Your task to perform on an android device: change your default location settings in chrome Image 0: 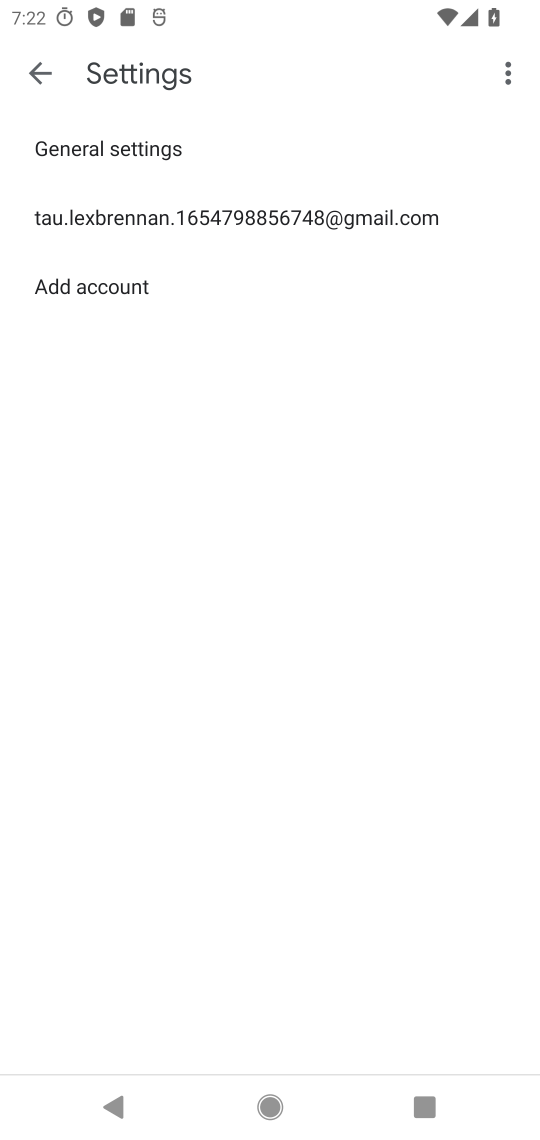
Step 0: click (37, 83)
Your task to perform on an android device: change your default location settings in chrome Image 1: 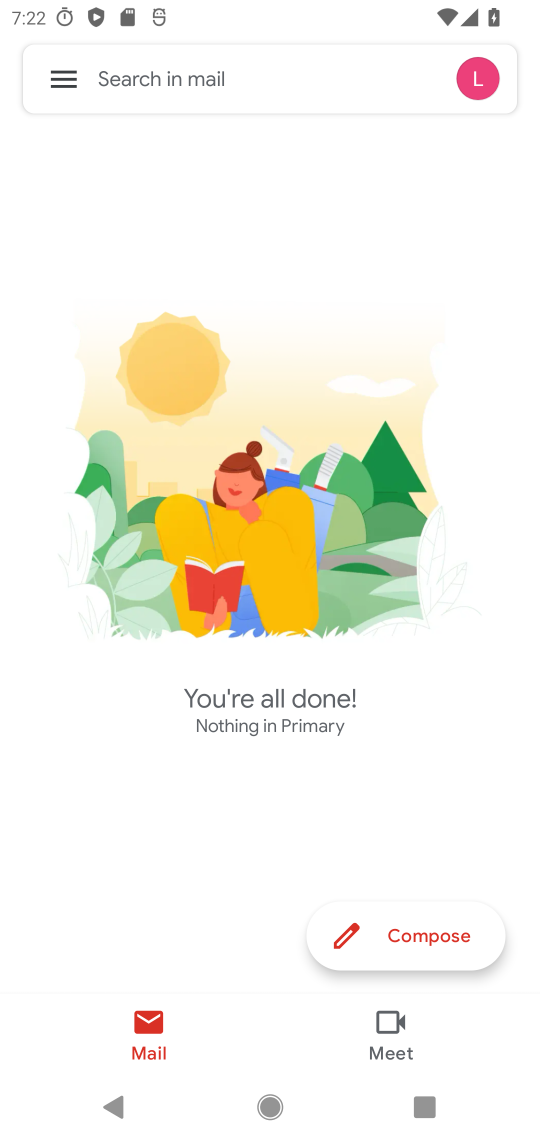
Step 1: click (72, 54)
Your task to perform on an android device: change your default location settings in chrome Image 2: 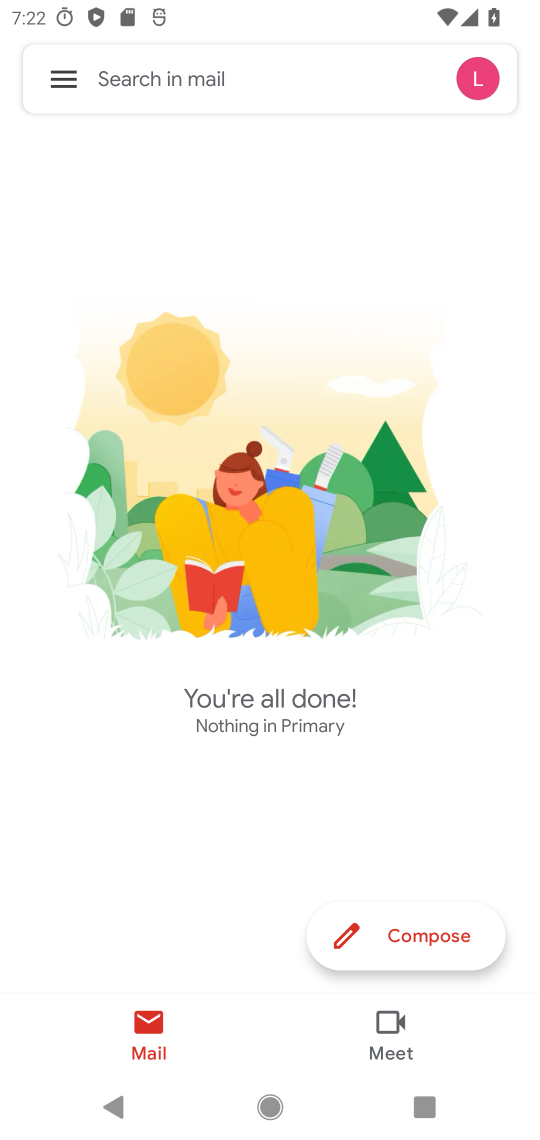
Step 2: click (72, 57)
Your task to perform on an android device: change your default location settings in chrome Image 3: 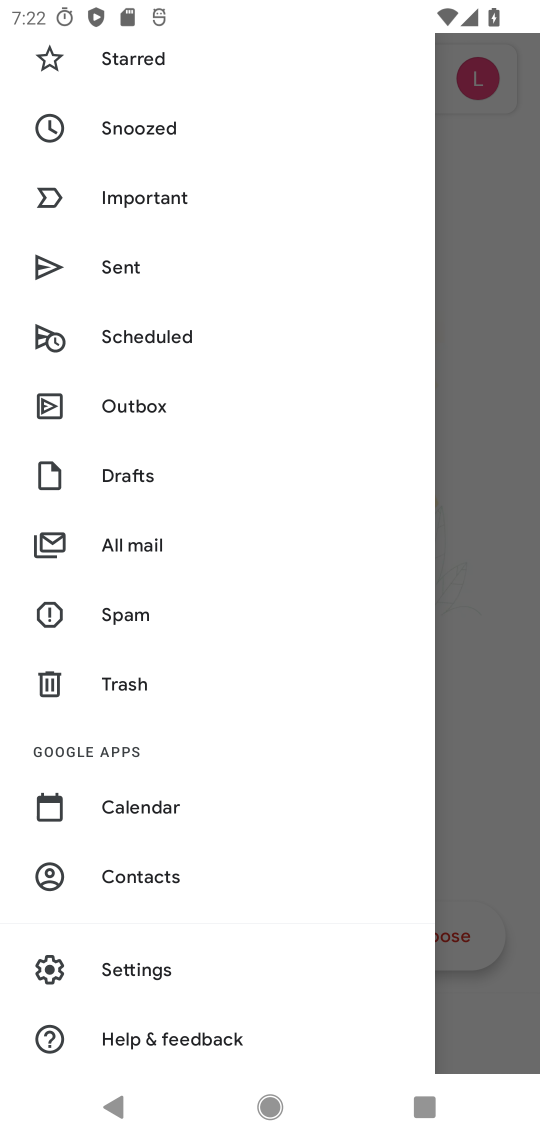
Step 3: click (426, 212)
Your task to perform on an android device: change your default location settings in chrome Image 4: 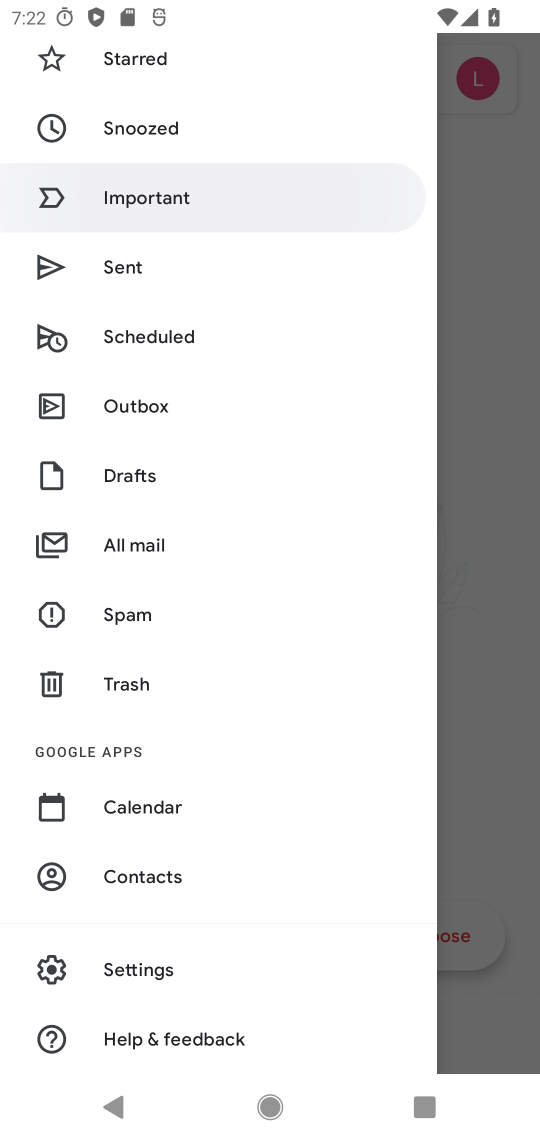
Step 4: click (479, 289)
Your task to perform on an android device: change your default location settings in chrome Image 5: 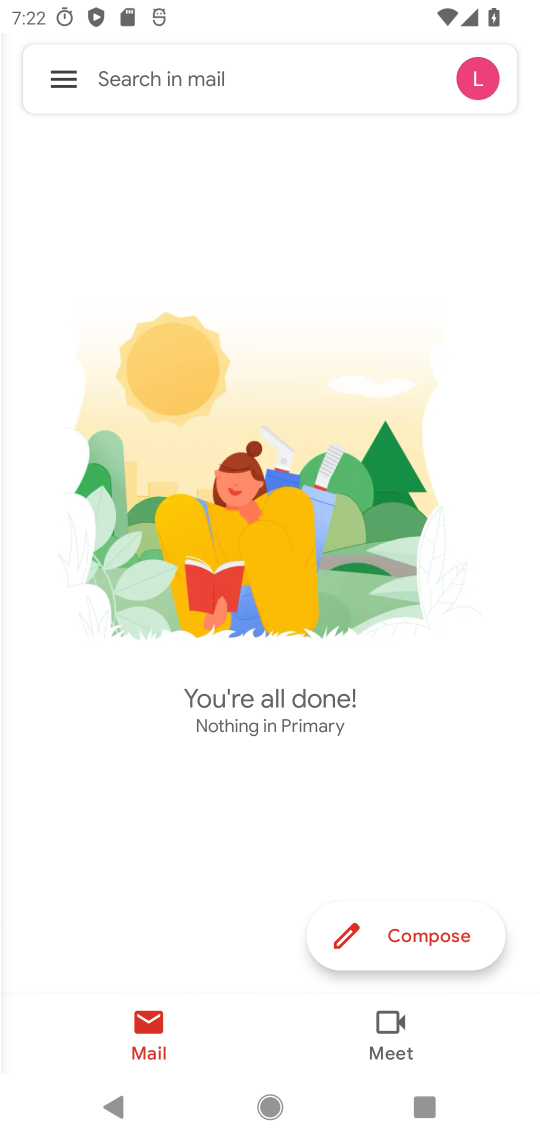
Step 5: click (479, 289)
Your task to perform on an android device: change your default location settings in chrome Image 6: 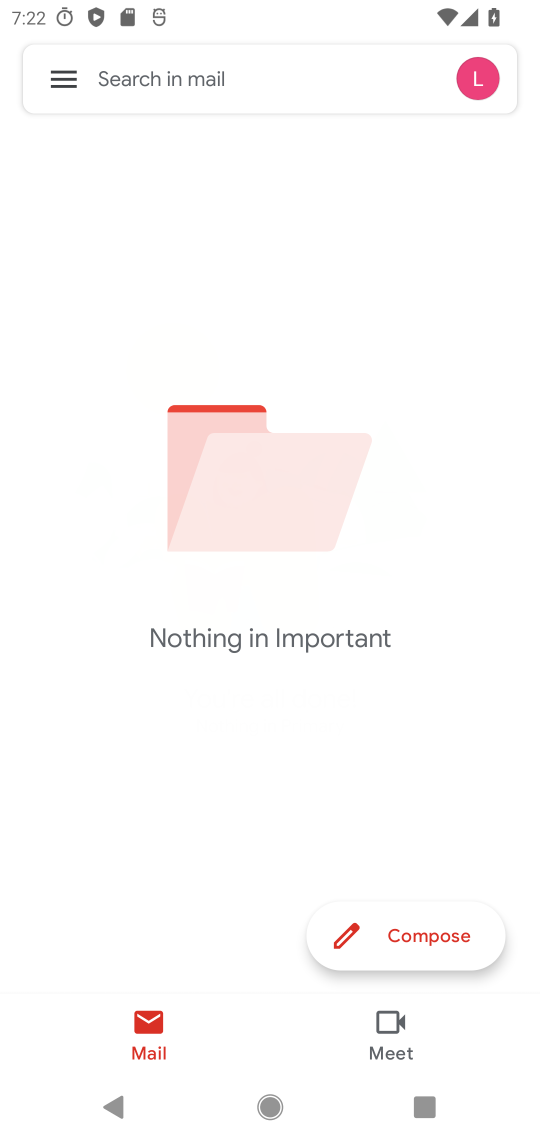
Step 6: click (479, 290)
Your task to perform on an android device: change your default location settings in chrome Image 7: 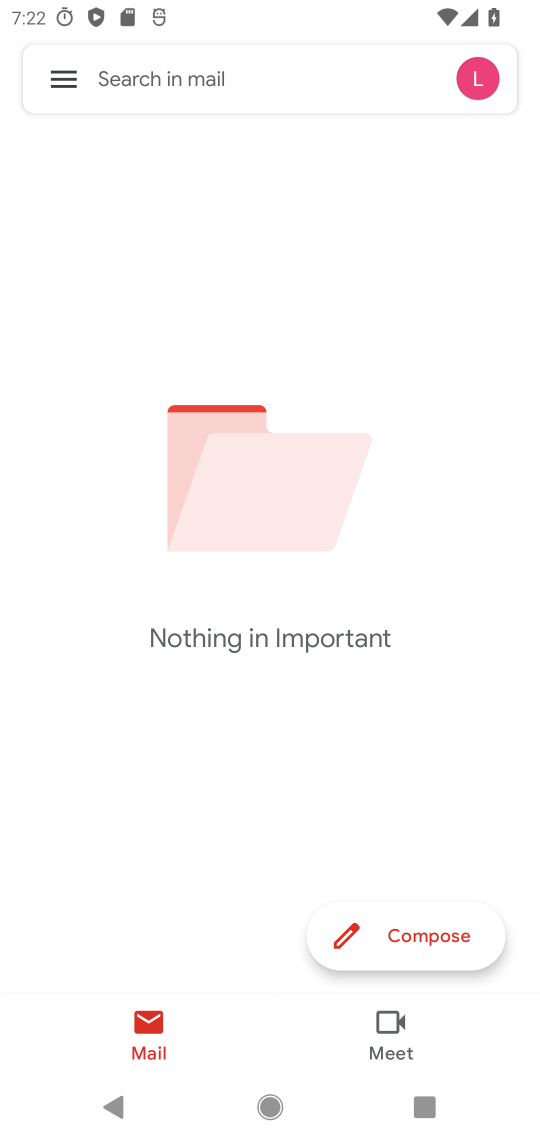
Step 7: click (56, 82)
Your task to perform on an android device: change your default location settings in chrome Image 8: 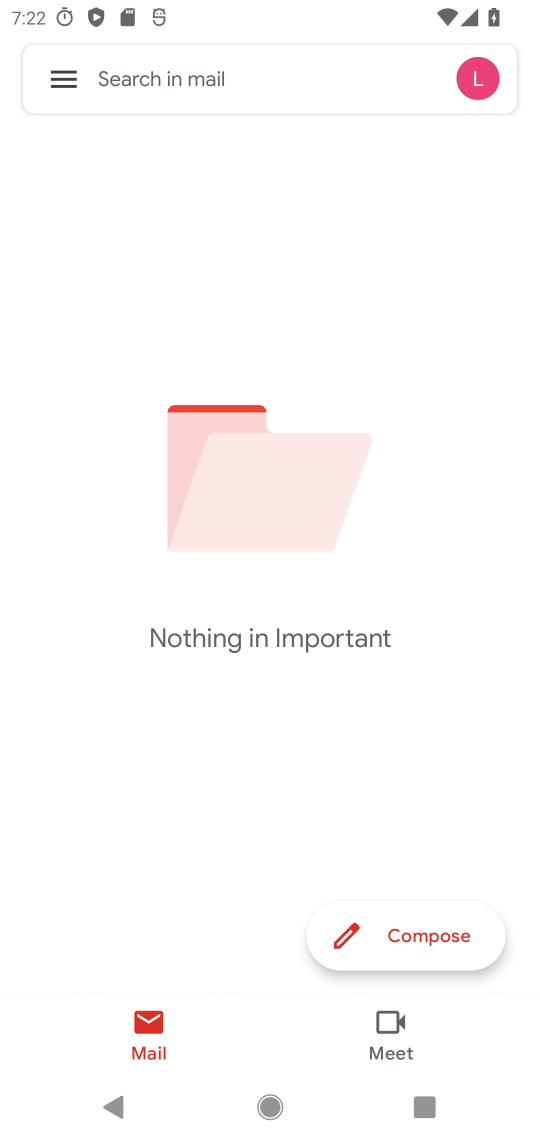
Step 8: click (59, 85)
Your task to perform on an android device: change your default location settings in chrome Image 9: 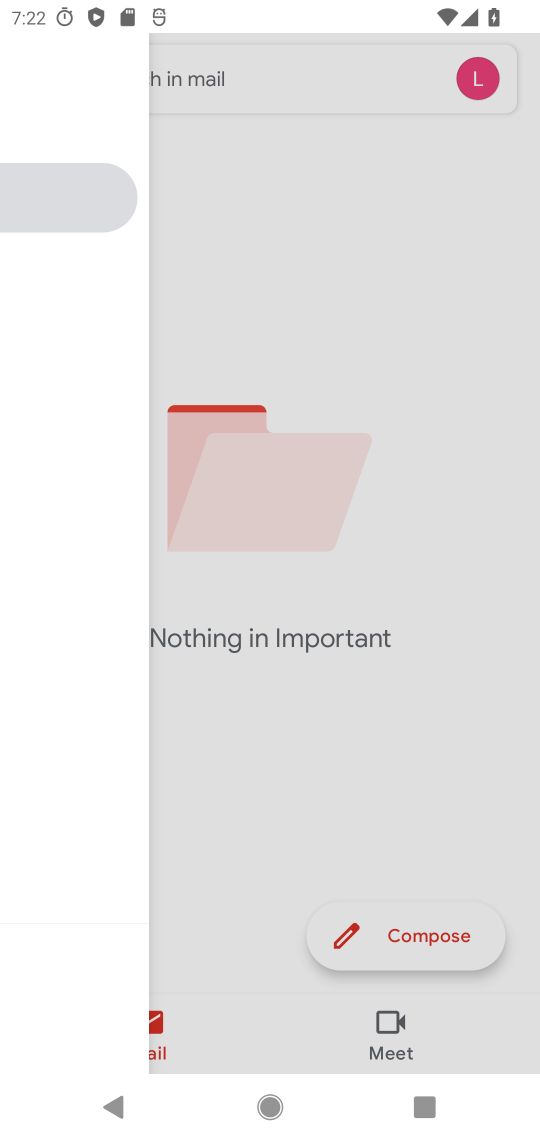
Step 9: click (62, 90)
Your task to perform on an android device: change your default location settings in chrome Image 10: 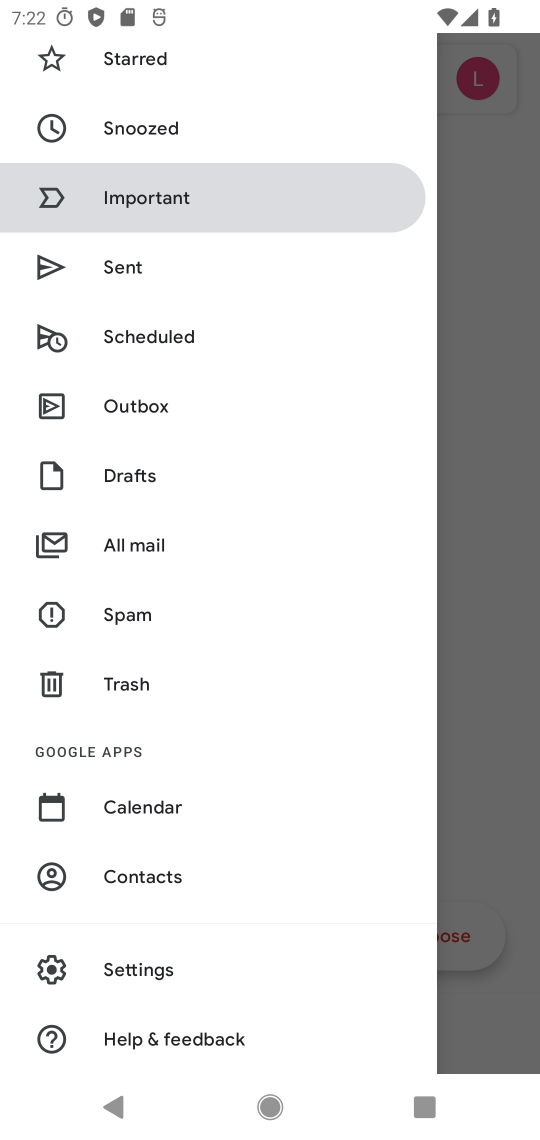
Step 10: click (498, 243)
Your task to perform on an android device: change your default location settings in chrome Image 11: 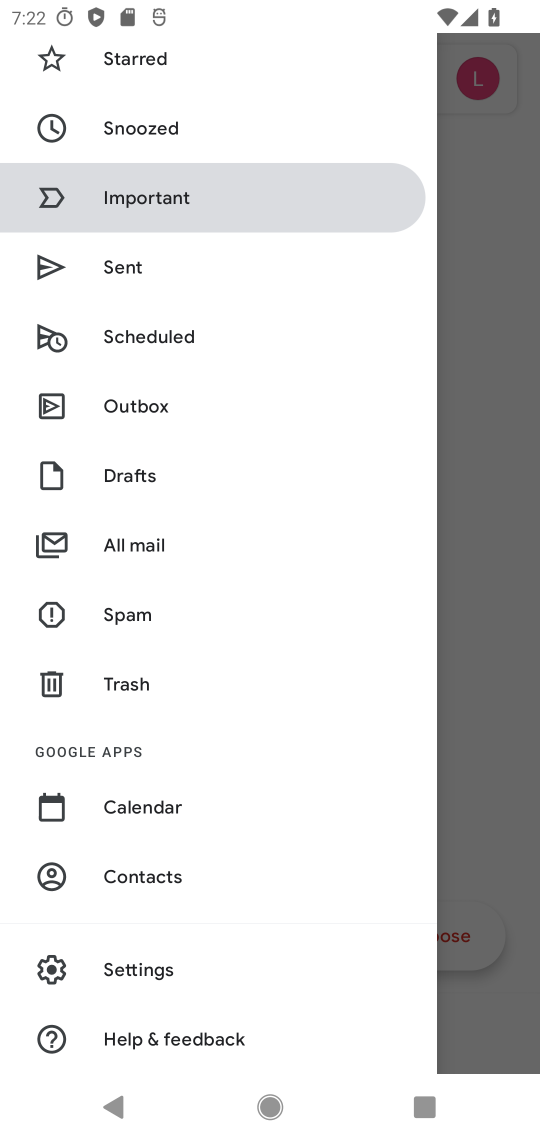
Step 11: click (497, 243)
Your task to perform on an android device: change your default location settings in chrome Image 12: 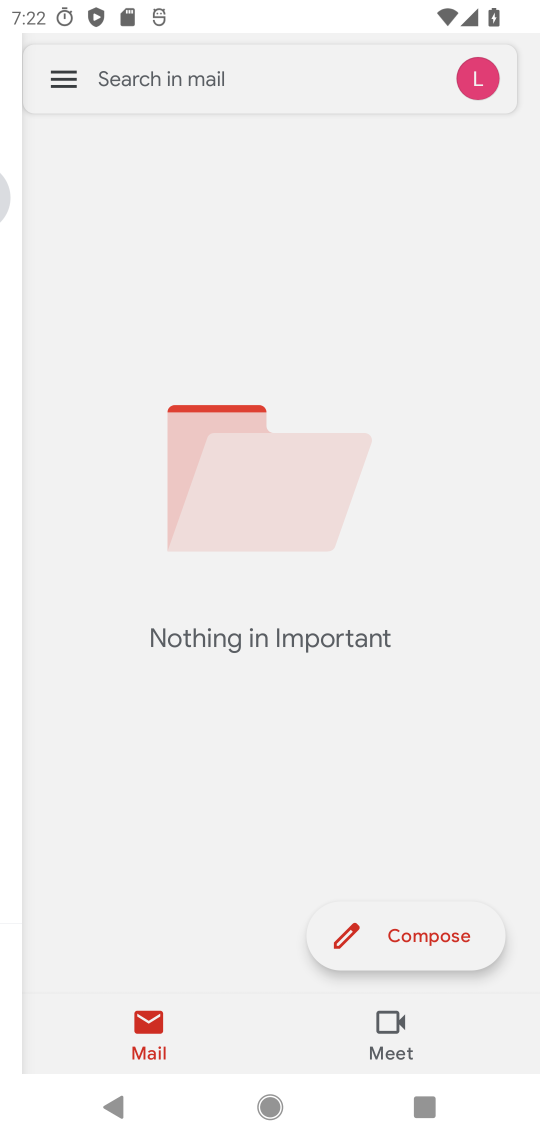
Step 12: click (495, 246)
Your task to perform on an android device: change your default location settings in chrome Image 13: 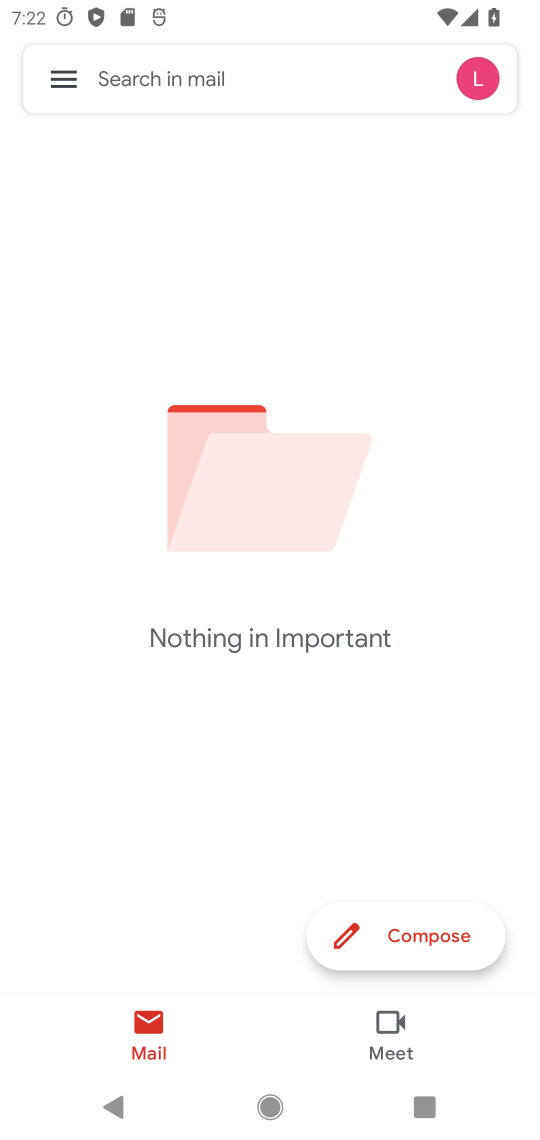
Step 13: click (96, 91)
Your task to perform on an android device: change your default location settings in chrome Image 14: 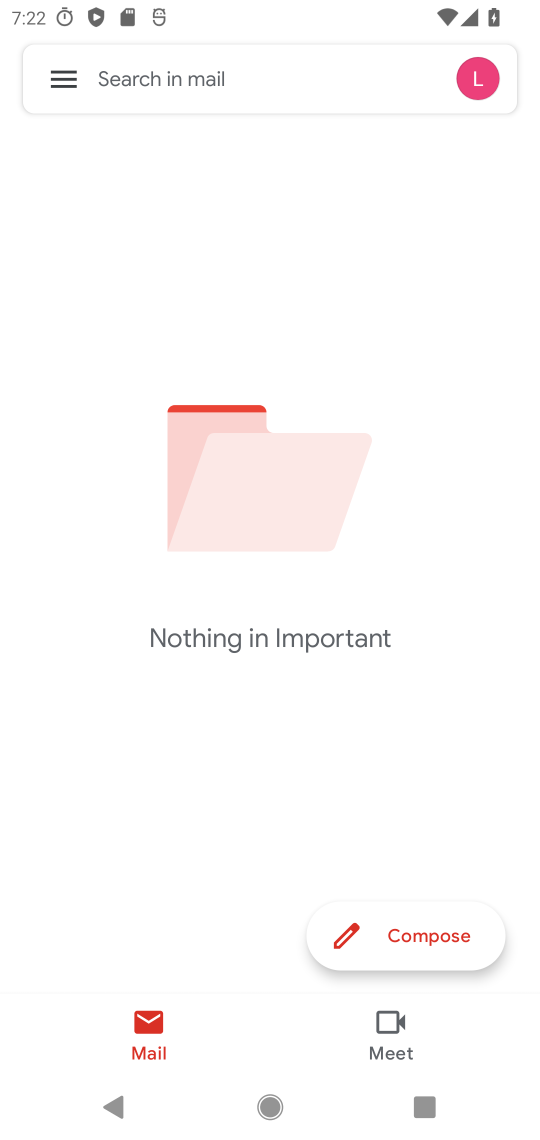
Step 14: click (96, 91)
Your task to perform on an android device: change your default location settings in chrome Image 15: 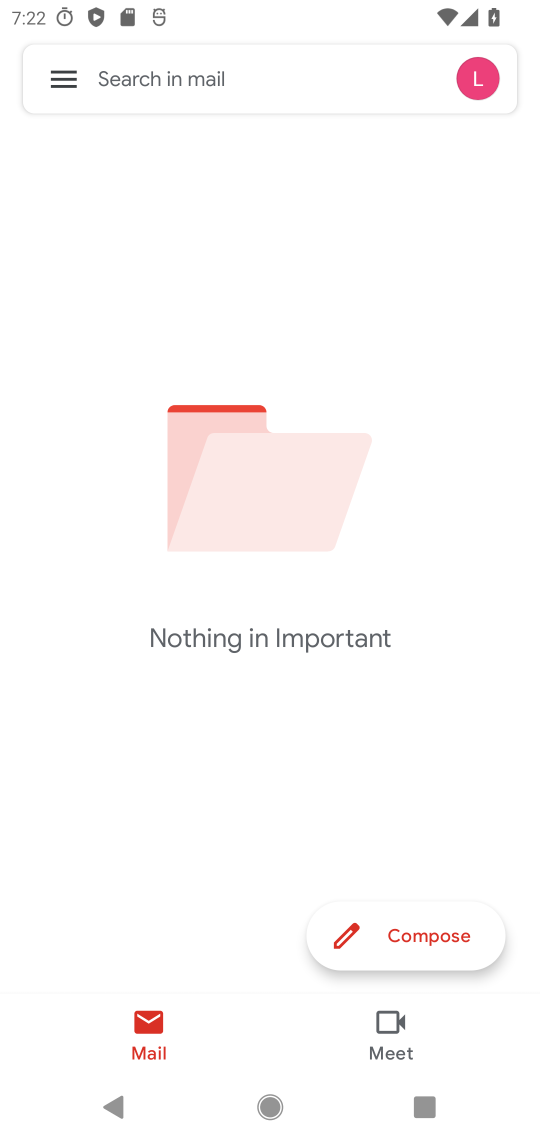
Step 15: press back button
Your task to perform on an android device: change your default location settings in chrome Image 16: 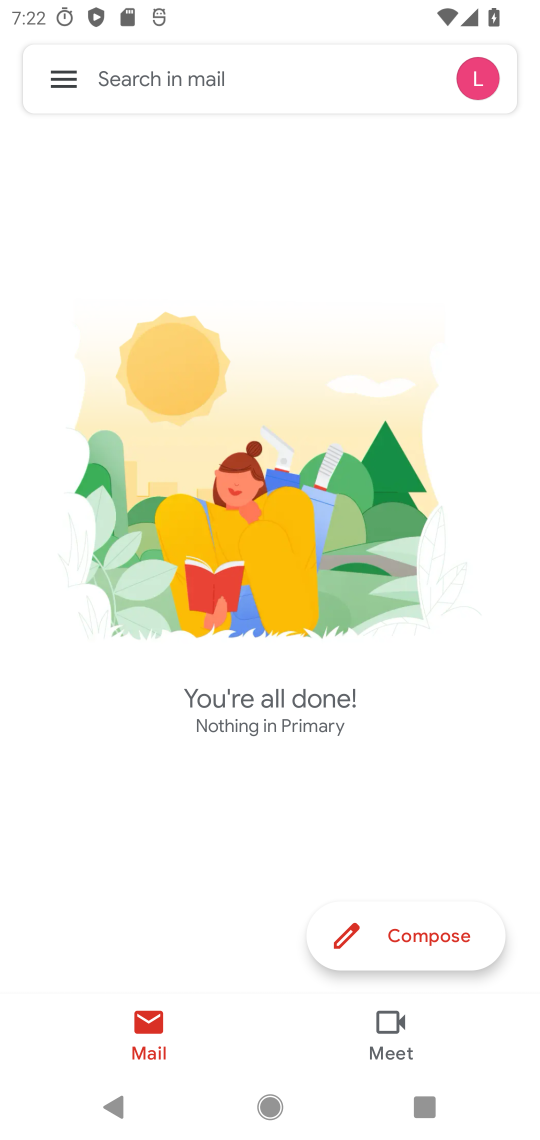
Step 16: click (67, 72)
Your task to perform on an android device: change your default location settings in chrome Image 17: 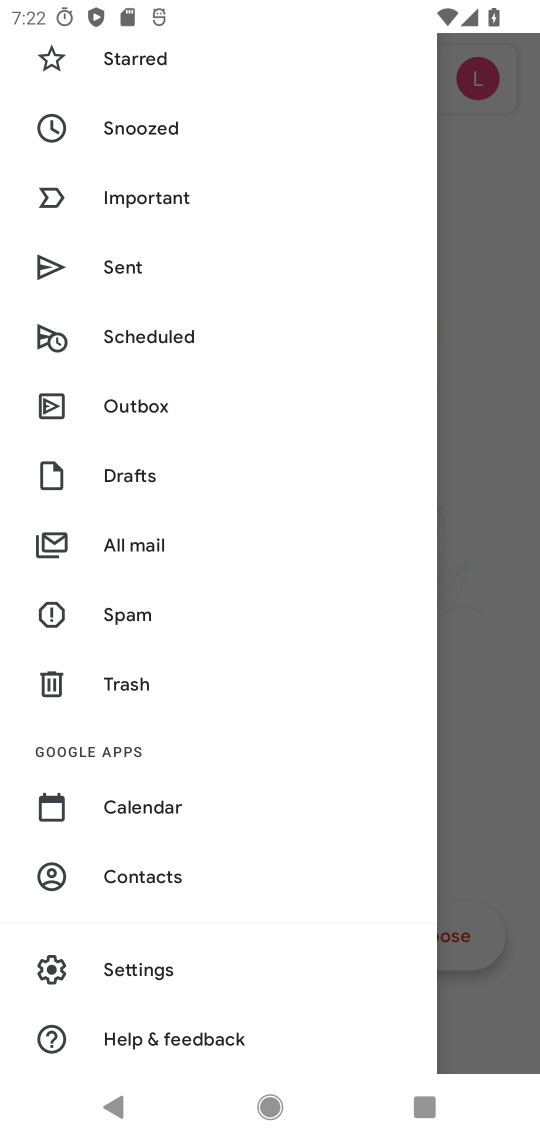
Step 17: click (457, 379)
Your task to perform on an android device: change your default location settings in chrome Image 18: 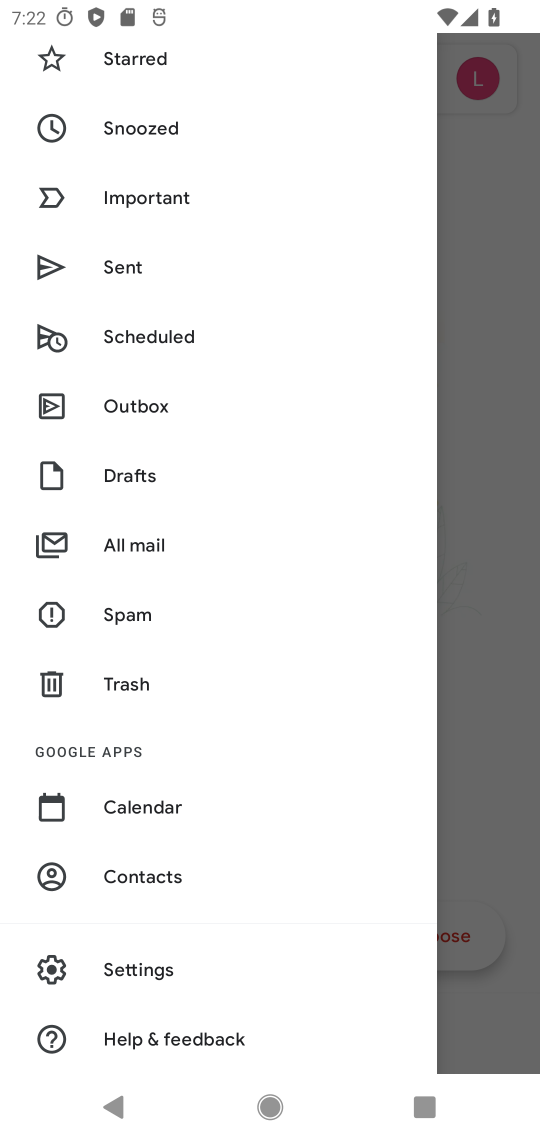
Step 18: click (469, 403)
Your task to perform on an android device: change your default location settings in chrome Image 19: 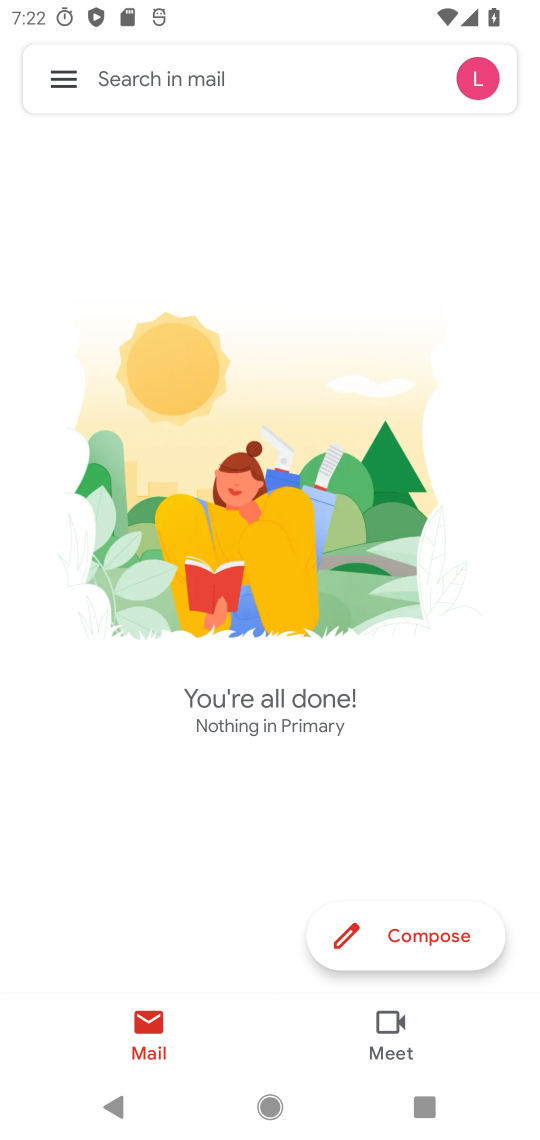
Step 19: press back button
Your task to perform on an android device: change your default location settings in chrome Image 20: 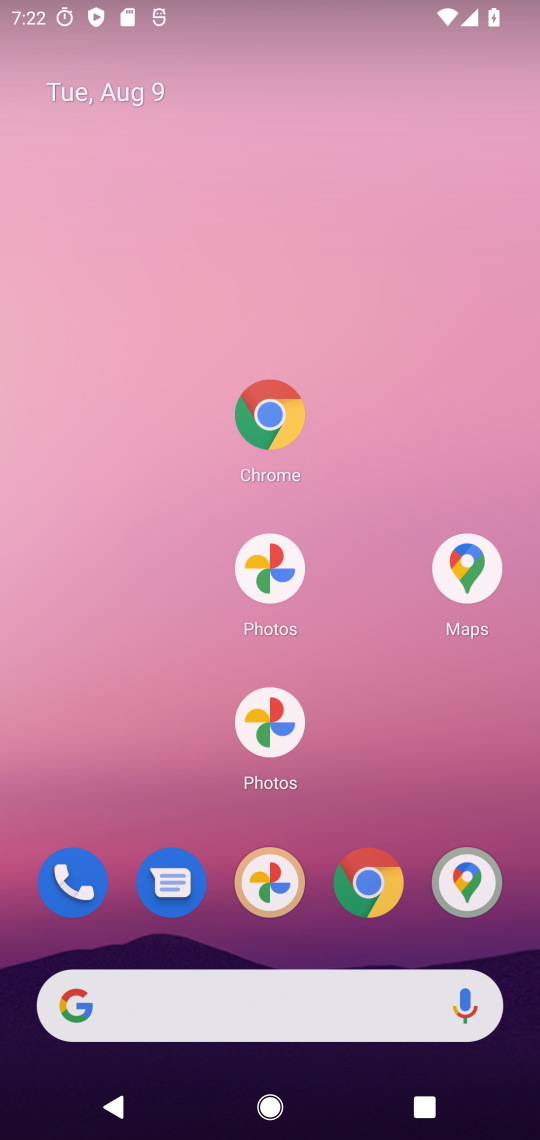
Step 20: click (83, 96)
Your task to perform on an android device: change your default location settings in chrome Image 21: 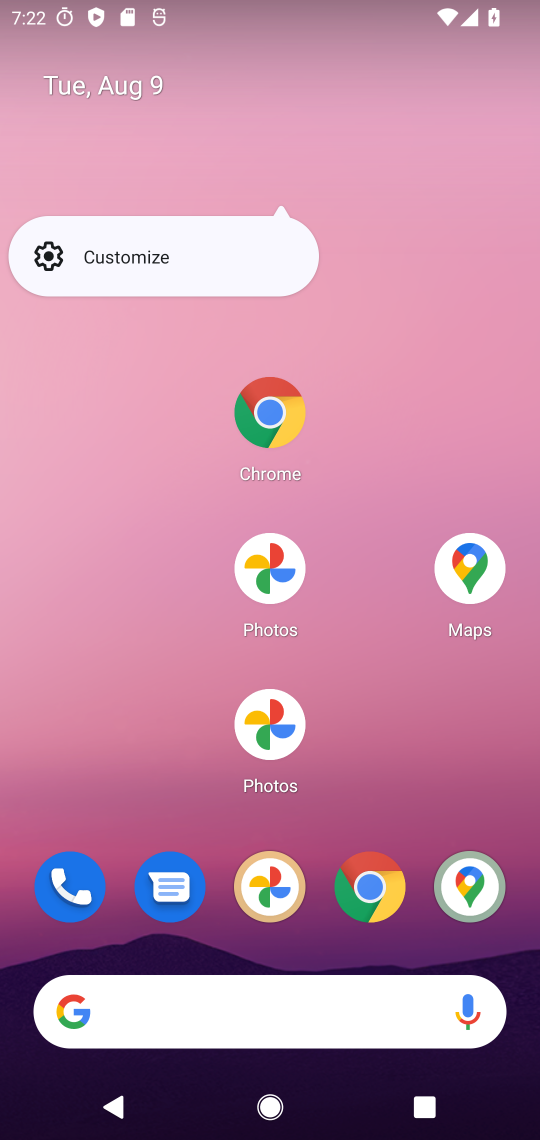
Step 21: drag from (312, 951) to (258, 152)
Your task to perform on an android device: change your default location settings in chrome Image 22: 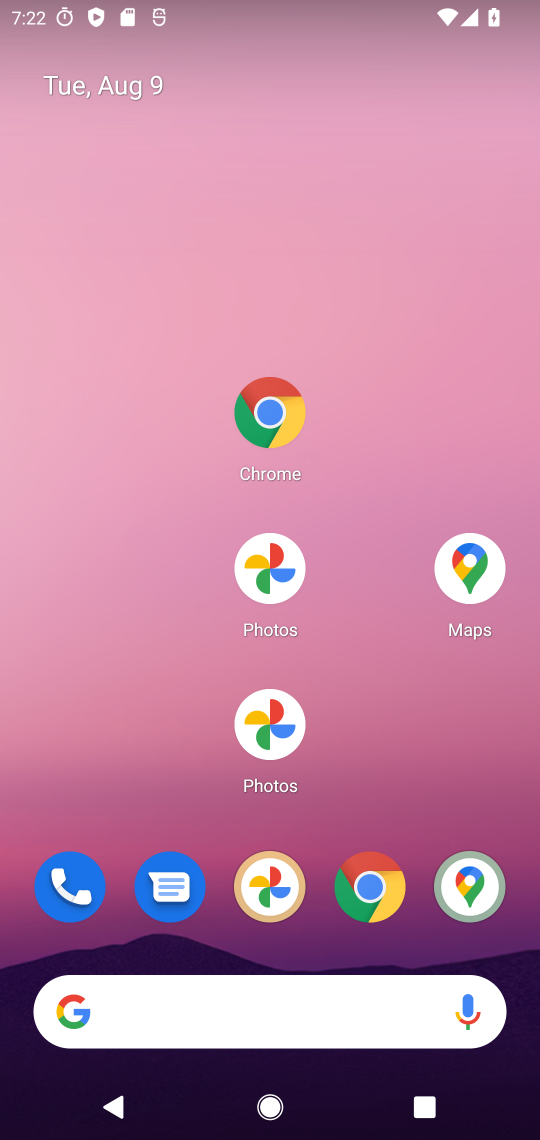
Step 22: drag from (282, 880) to (275, 188)
Your task to perform on an android device: change your default location settings in chrome Image 23: 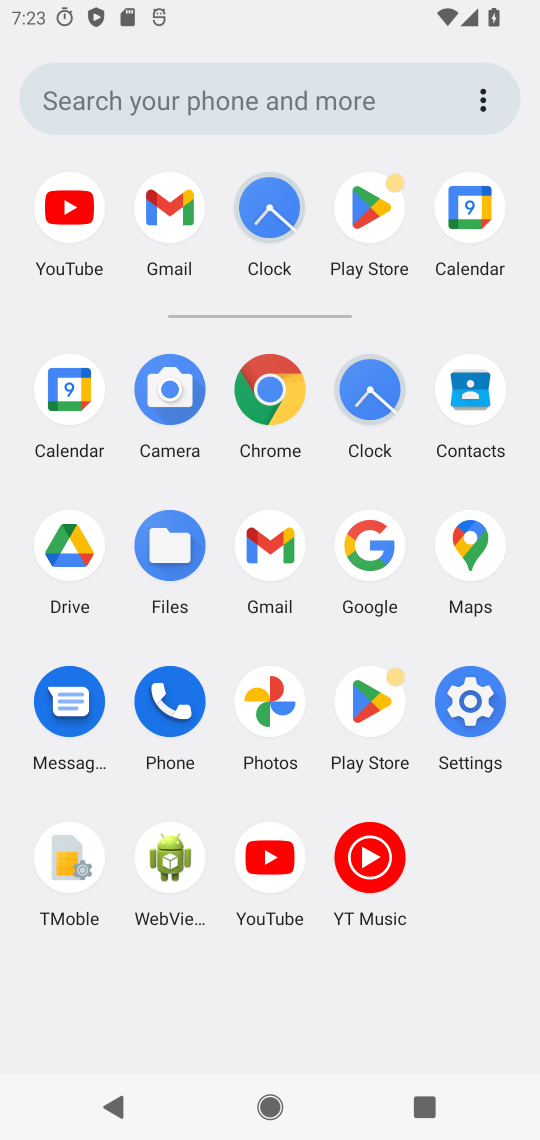
Step 23: click (271, 393)
Your task to perform on an android device: change your default location settings in chrome Image 24: 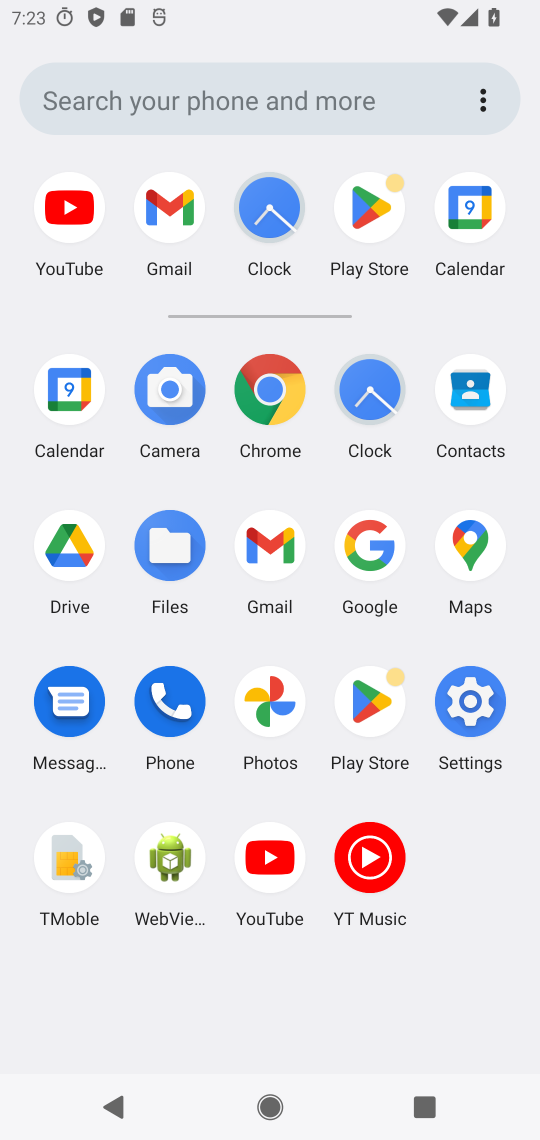
Step 24: click (274, 393)
Your task to perform on an android device: change your default location settings in chrome Image 25: 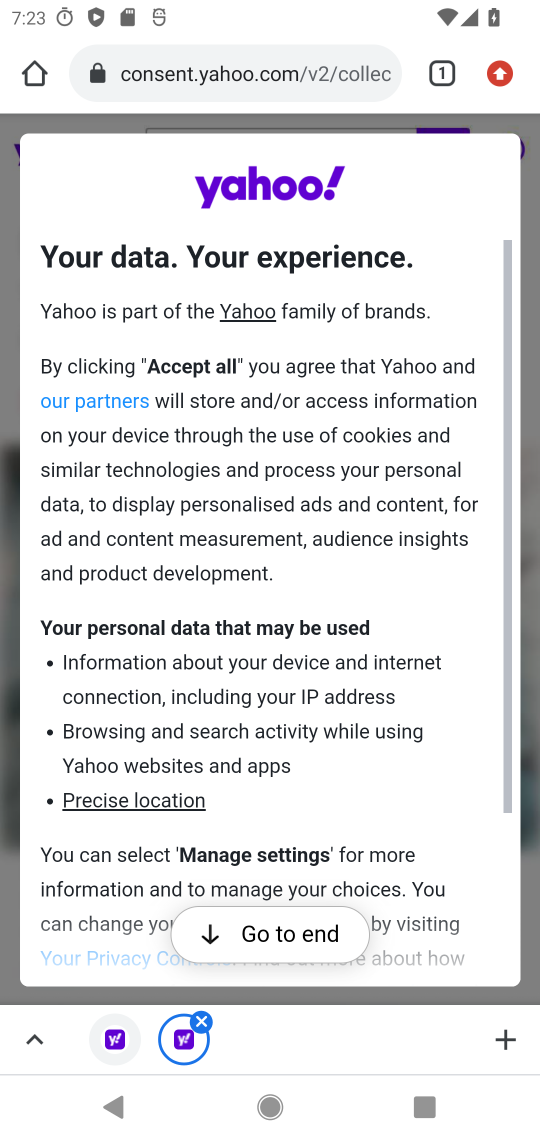
Step 25: drag from (486, 61) to (457, 884)
Your task to perform on an android device: change your default location settings in chrome Image 26: 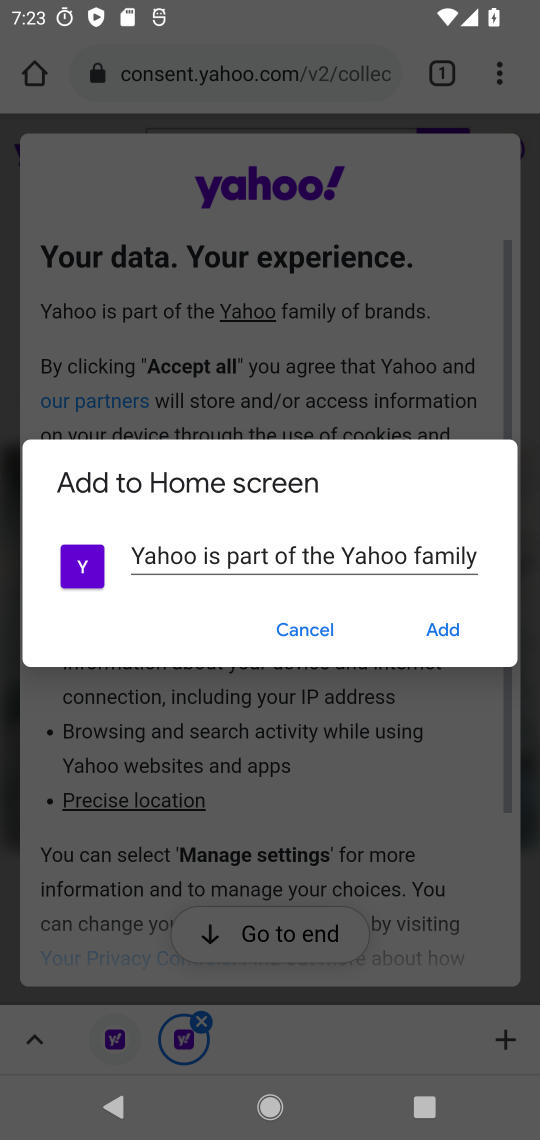
Step 26: drag from (505, 73) to (427, 636)
Your task to perform on an android device: change your default location settings in chrome Image 27: 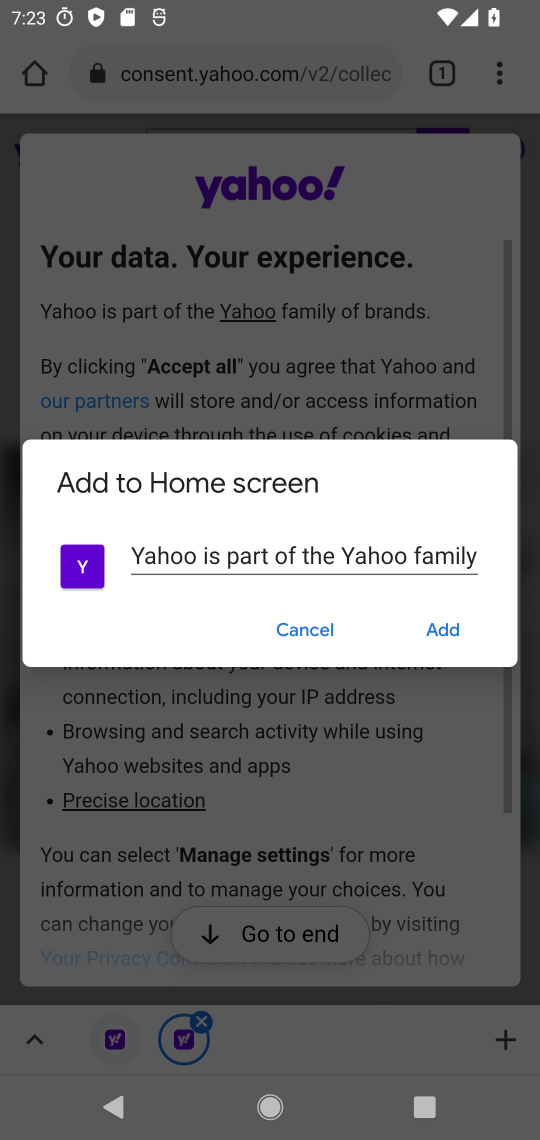
Step 27: drag from (491, 65) to (325, 671)
Your task to perform on an android device: change your default location settings in chrome Image 28: 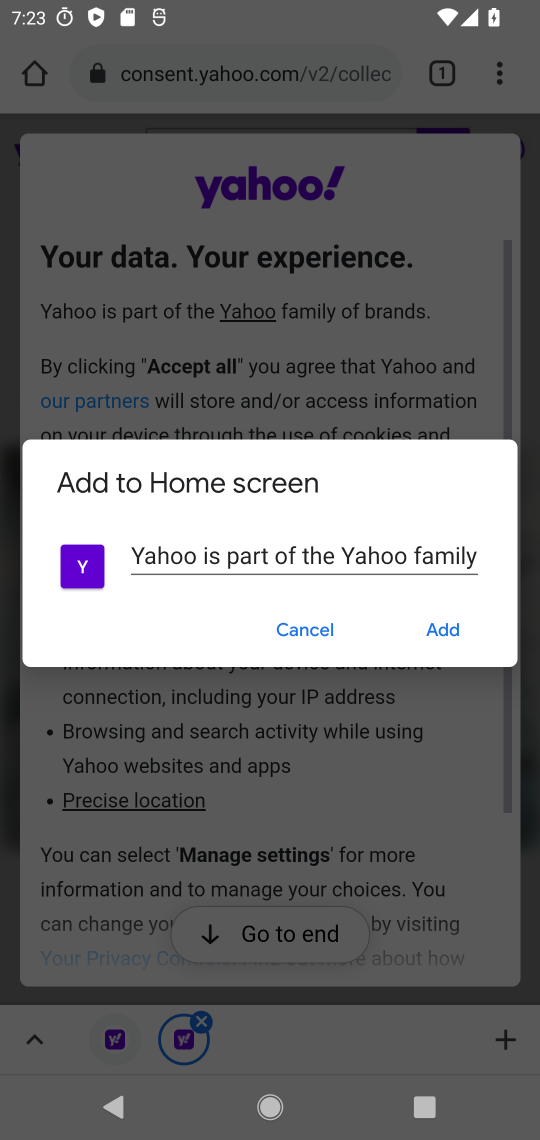
Step 28: click (303, 630)
Your task to perform on an android device: change your default location settings in chrome Image 29: 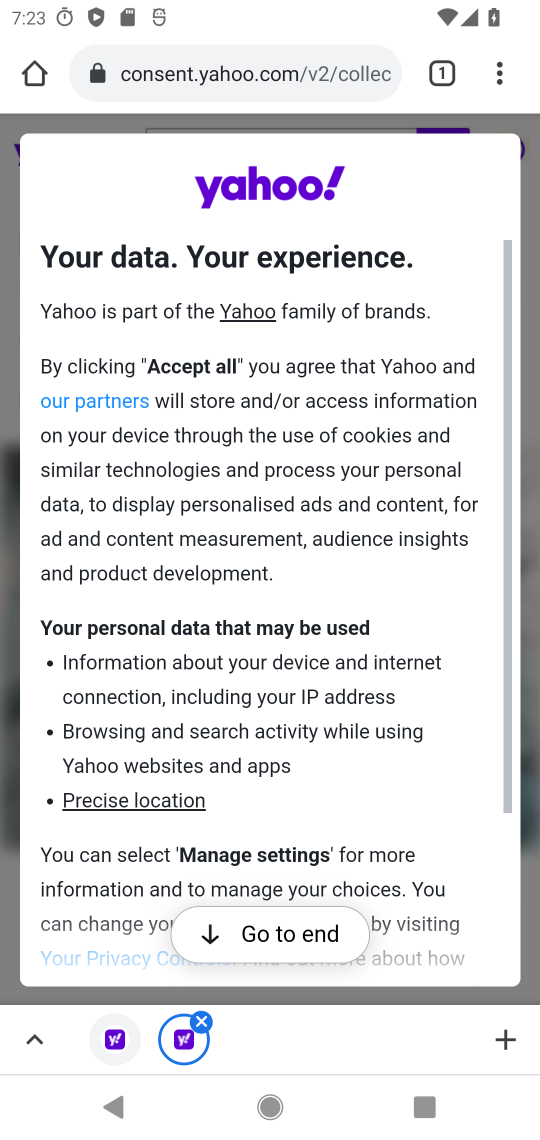
Step 29: drag from (499, 57) to (495, 110)
Your task to perform on an android device: change your default location settings in chrome Image 30: 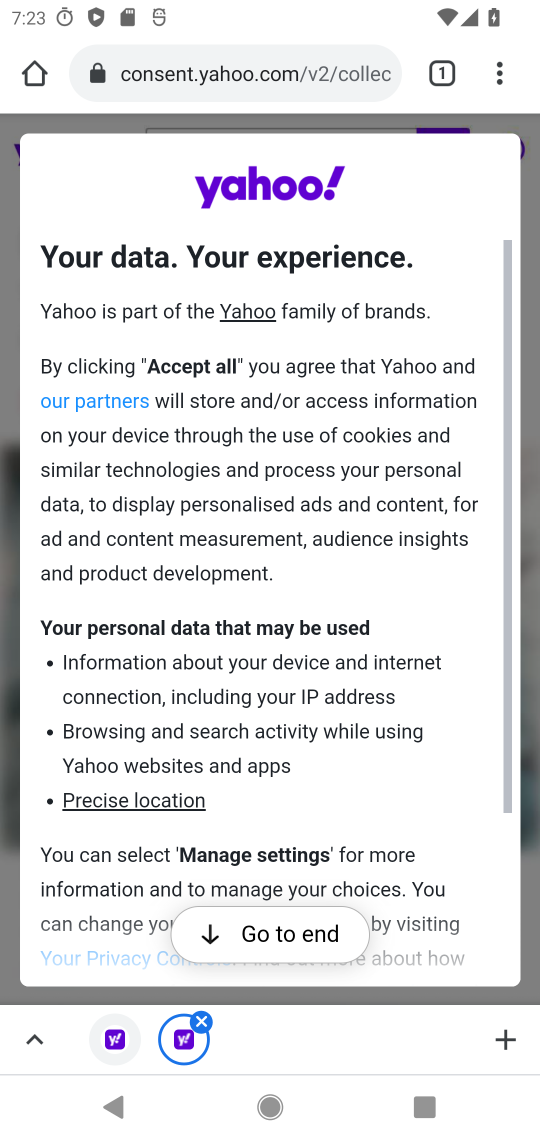
Step 30: drag from (491, 74) to (330, 966)
Your task to perform on an android device: change your default location settings in chrome Image 31: 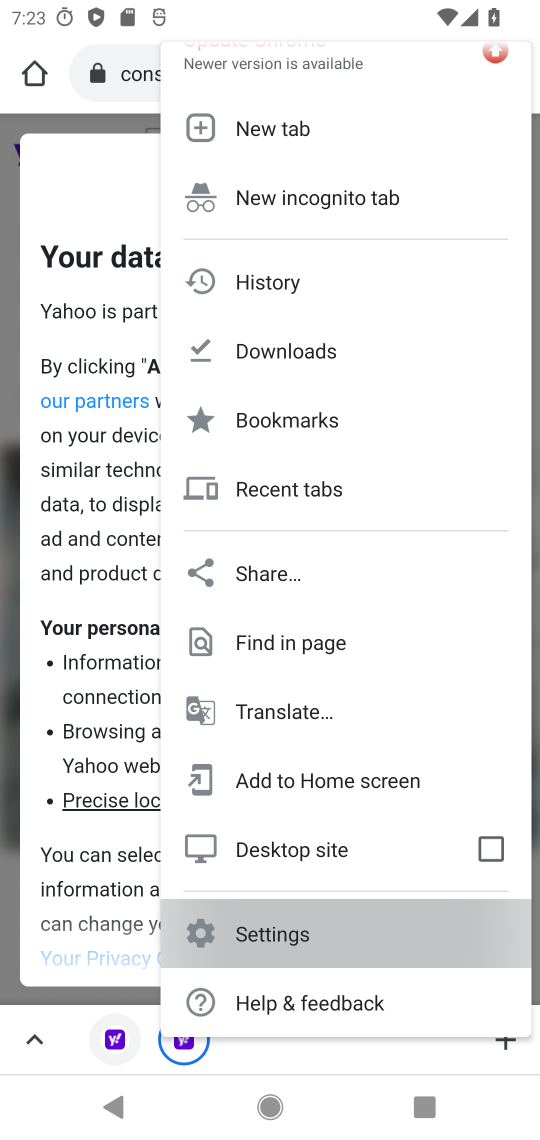
Step 31: click (344, 934)
Your task to perform on an android device: change your default location settings in chrome Image 32: 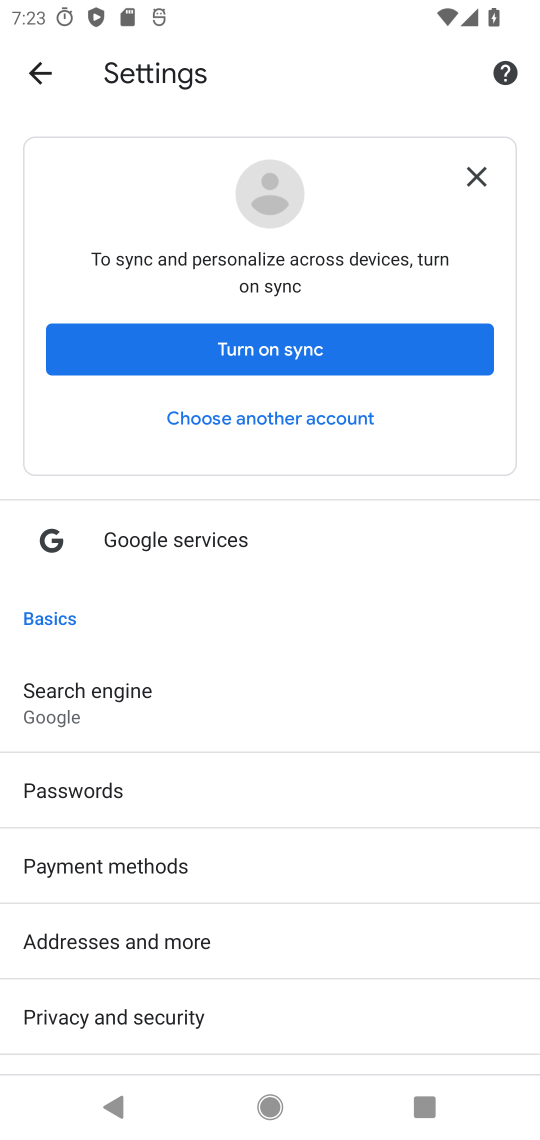
Step 32: drag from (172, 856) to (177, 384)
Your task to perform on an android device: change your default location settings in chrome Image 33: 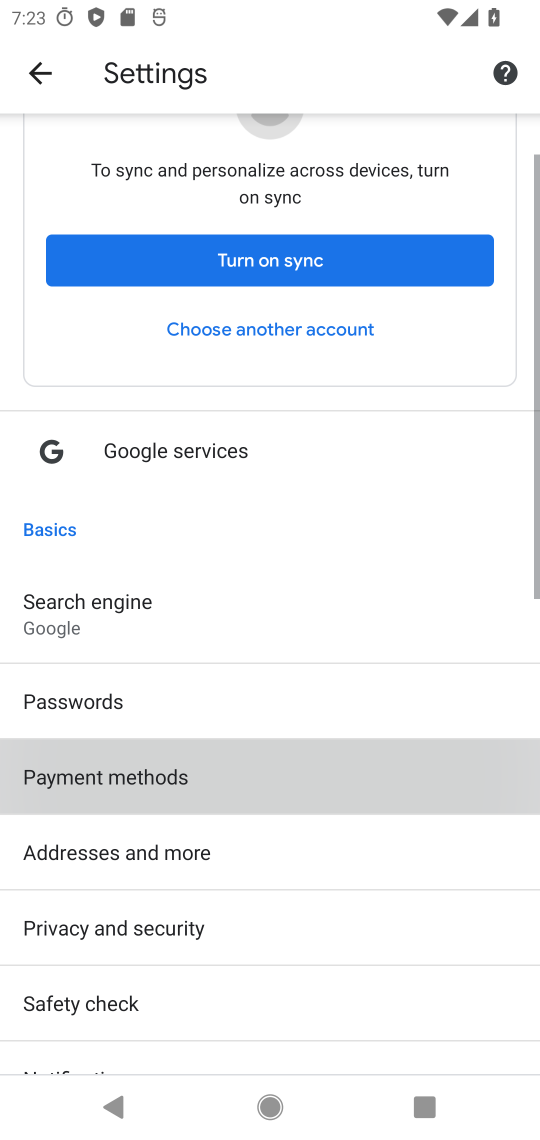
Step 33: drag from (149, 831) to (186, 333)
Your task to perform on an android device: change your default location settings in chrome Image 34: 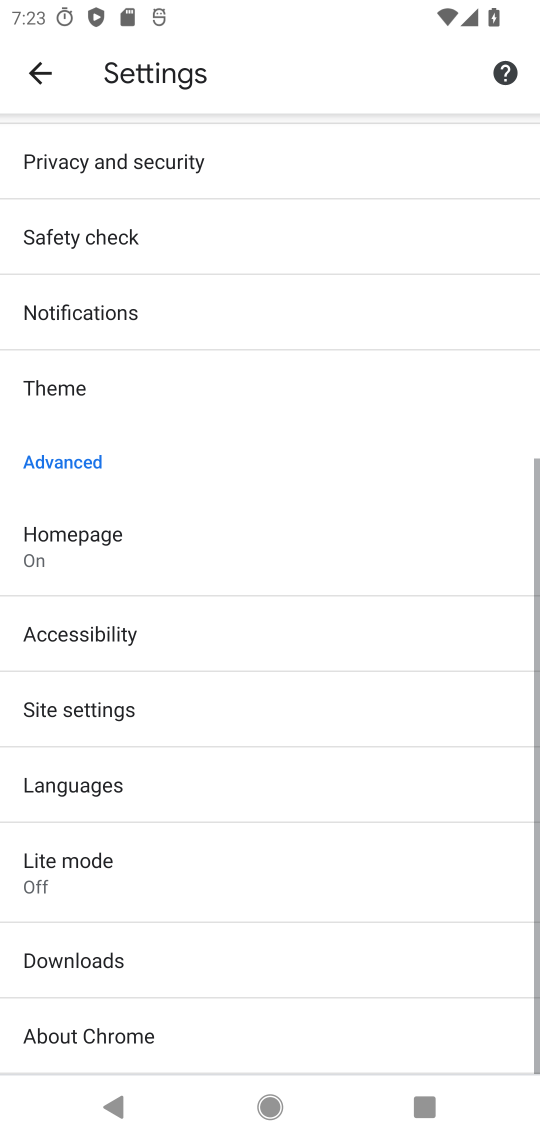
Step 34: drag from (175, 954) to (200, 691)
Your task to perform on an android device: change your default location settings in chrome Image 35: 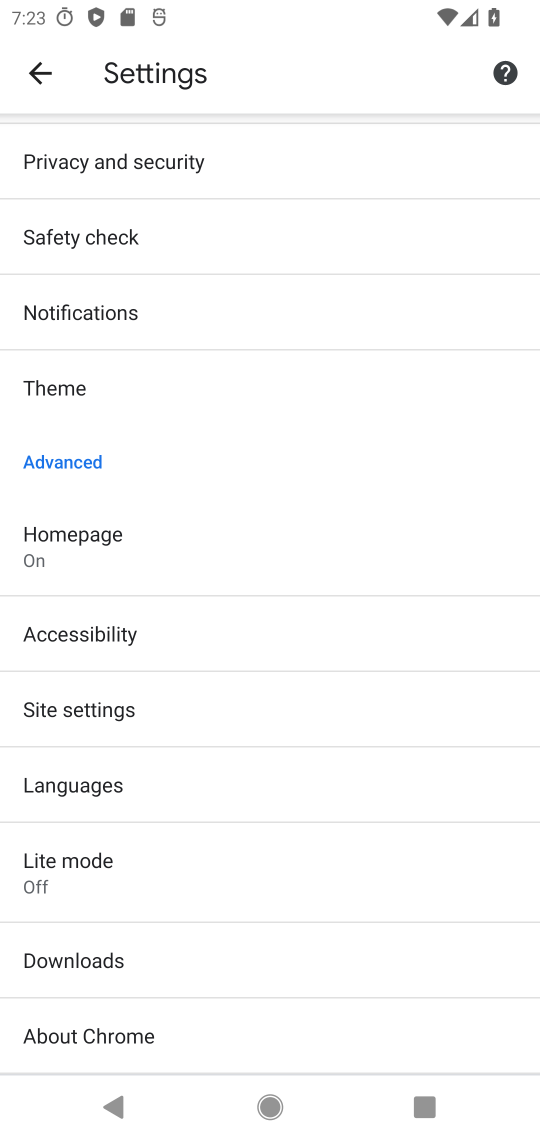
Step 35: click (65, 713)
Your task to perform on an android device: change your default location settings in chrome Image 36: 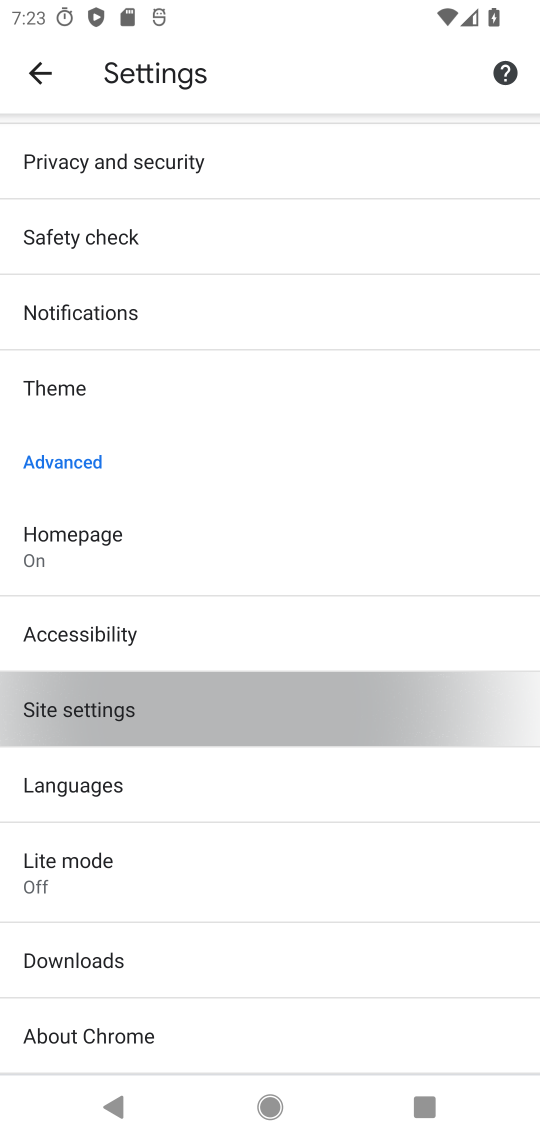
Step 36: click (64, 704)
Your task to perform on an android device: change your default location settings in chrome Image 37: 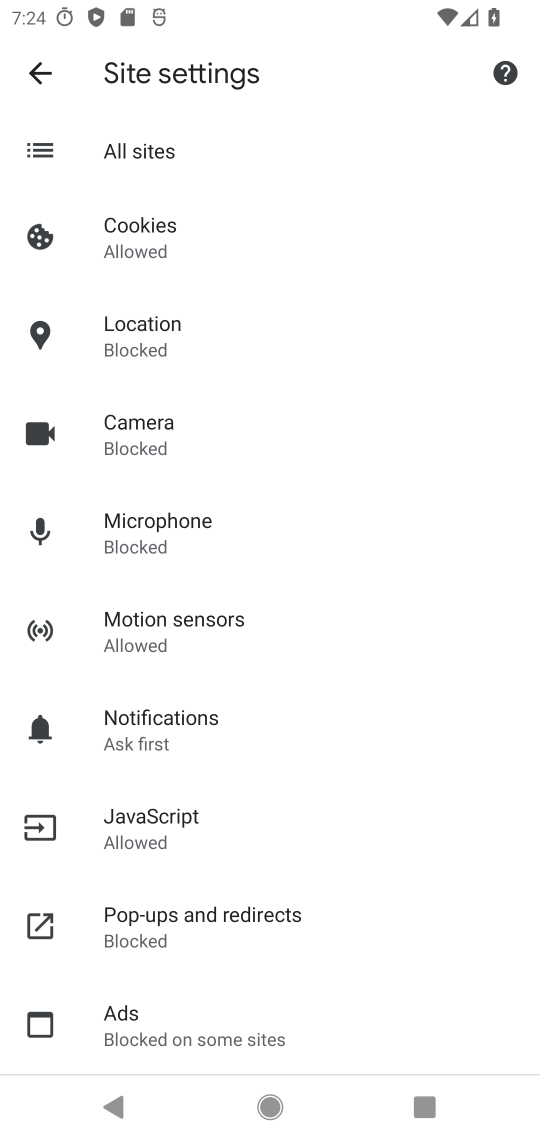
Step 37: click (116, 341)
Your task to perform on an android device: change your default location settings in chrome Image 38: 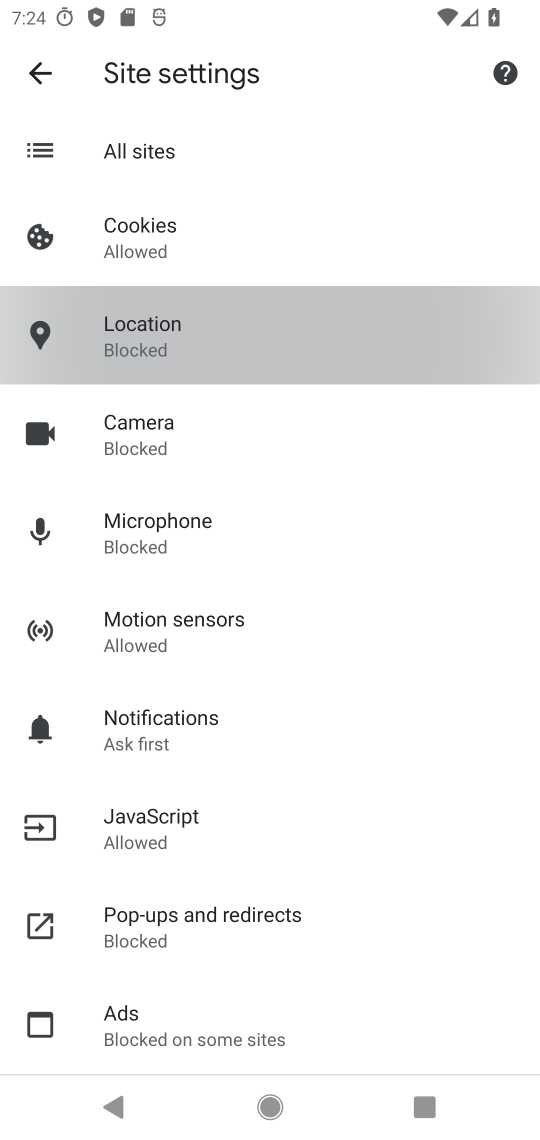
Step 38: click (152, 347)
Your task to perform on an android device: change your default location settings in chrome Image 39: 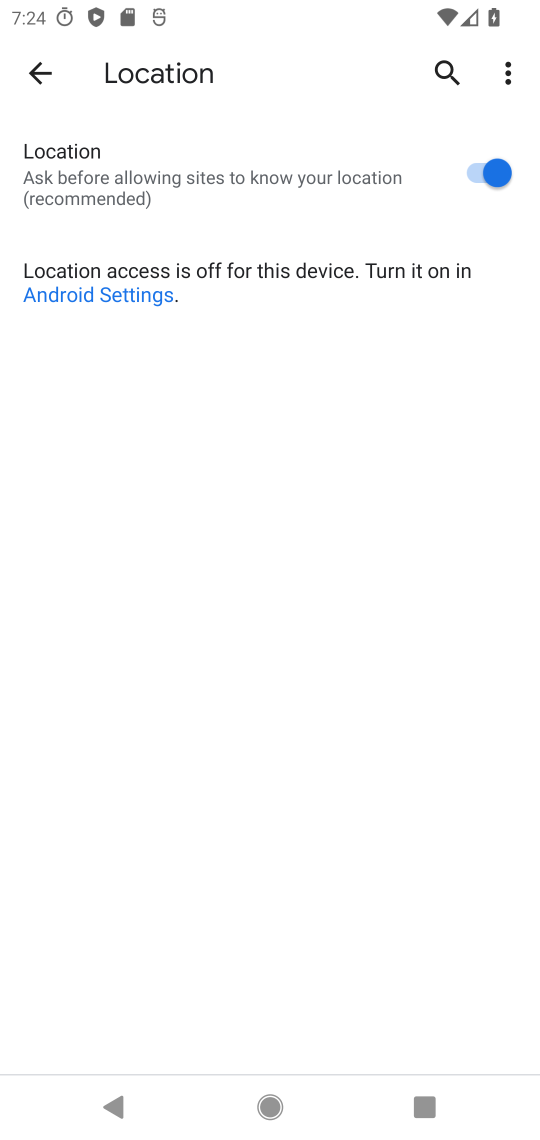
Step 39: click (498, 155)
Your task to perform on an android device: change your default location settings in chrome Image 40: 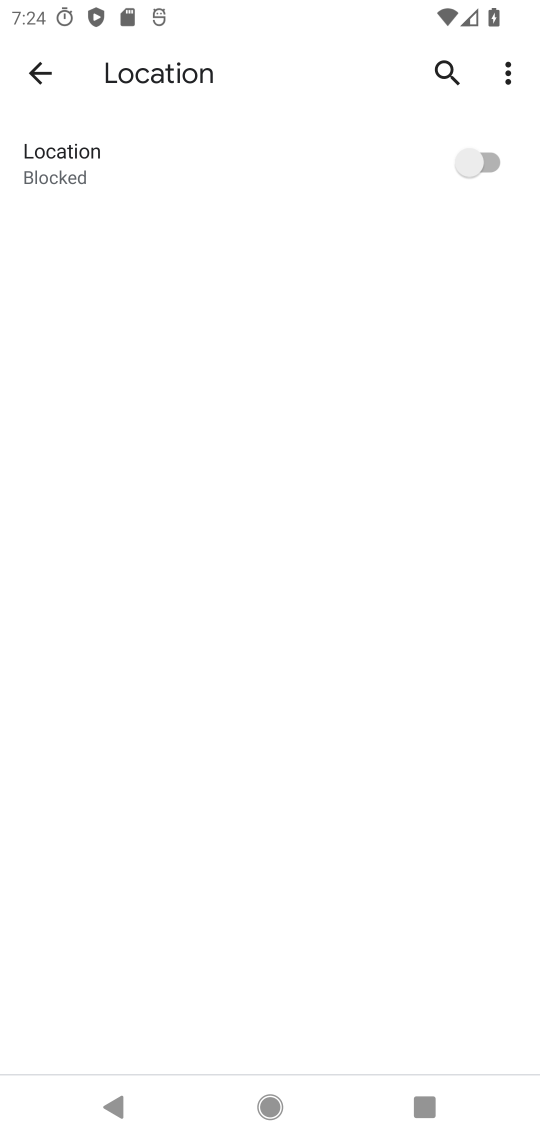
Step 40: task complete